Your task to perform on an android device: Go to sound settings Image 0: 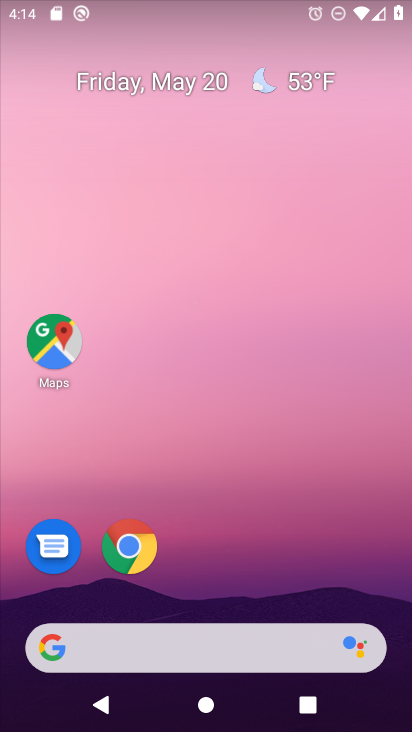
Step 0: drag from (265, 579) to (239, 118)
Your task to perform on an android device: Go to sound settings Image 1: 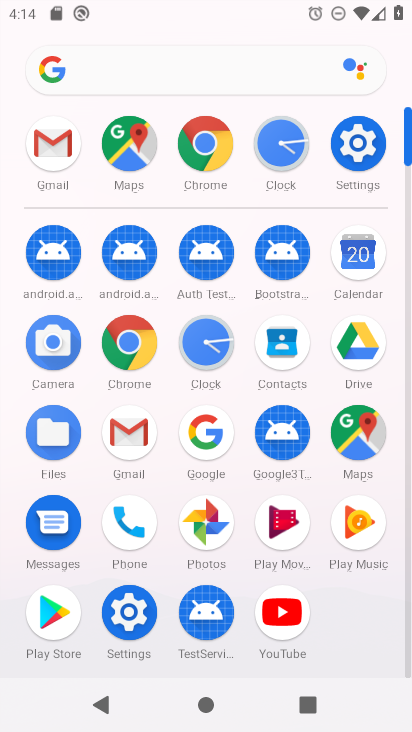
Step 1: click (355, 148)
Your task to perform on an android device: Go to sound settings Image 2: 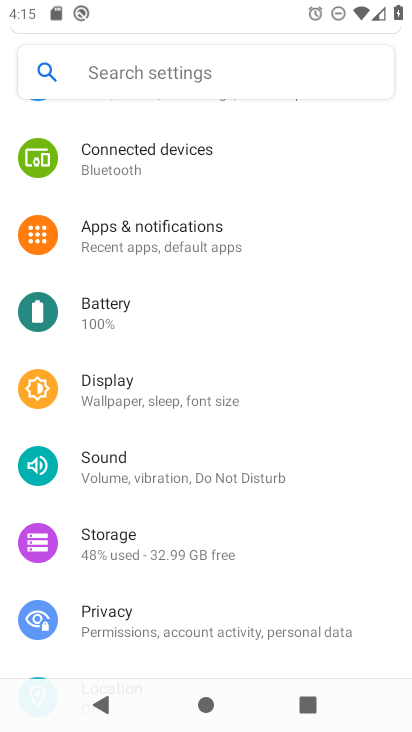
Step 2: click (141, 472)
Your task to perform on an android device: Go to sound settings Image 3: 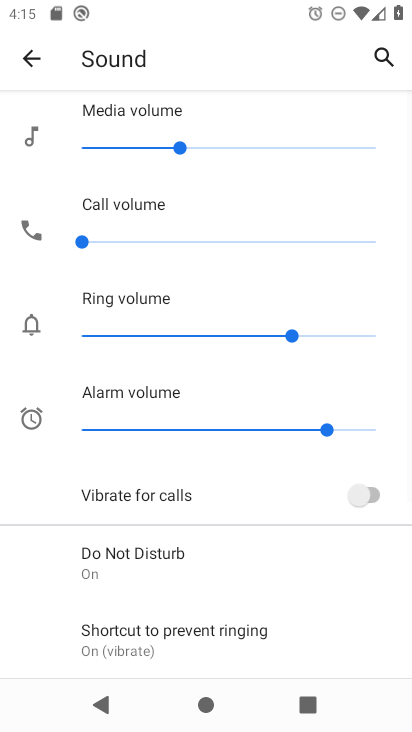
Step 3: task complete